Your task to perform on an android device: add a contact in the contacts app Image 0: 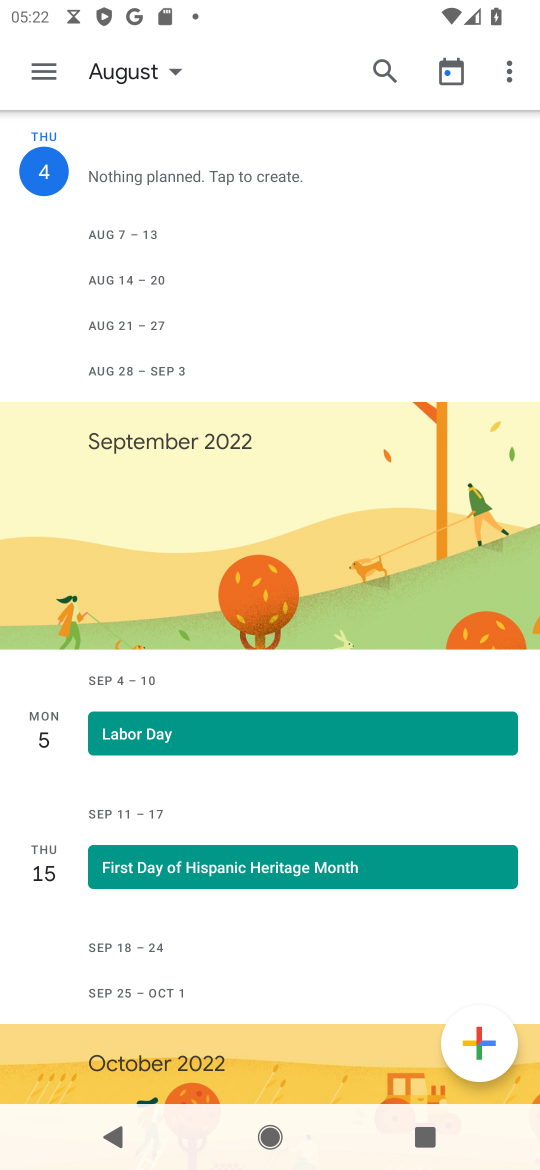
Step 0: press home button
Your task to perform on an android device: add a contact in the contacts app Image 1: 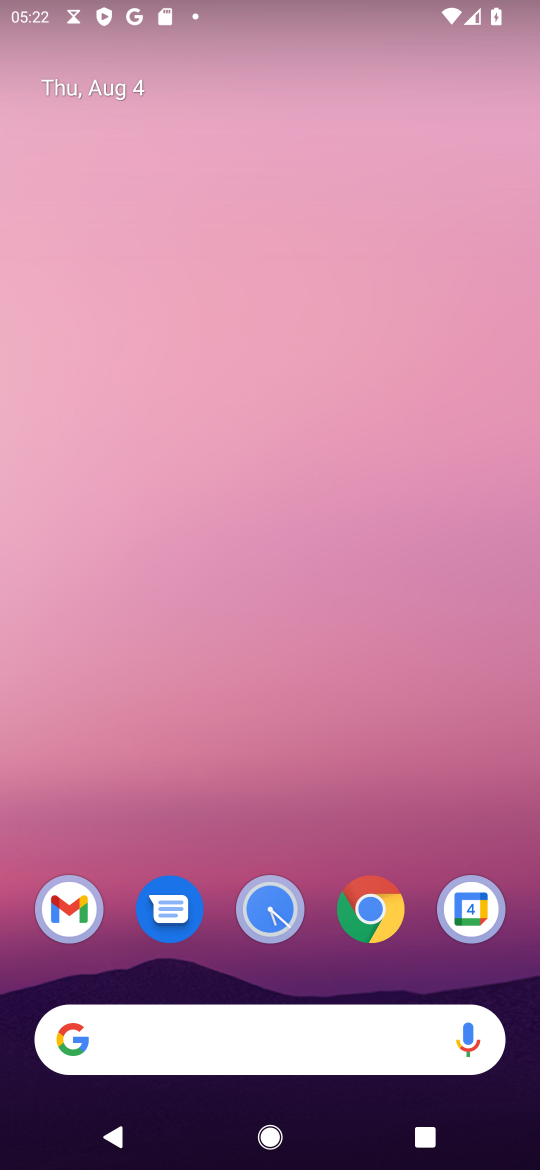
Step 1: drag from (341, 937) to (528, 224)
Your task to perform on an android device: add a contact in the contacts app Image 2: 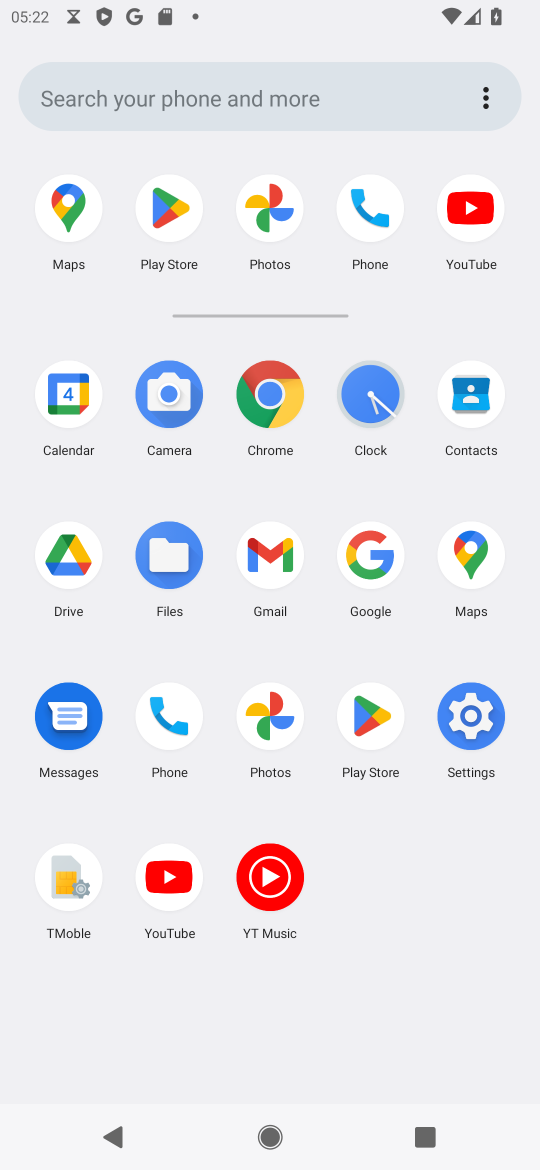
Step 2: click (474, 402)
Your task to perform on an android device: add a contact in the contacts app Image 3: 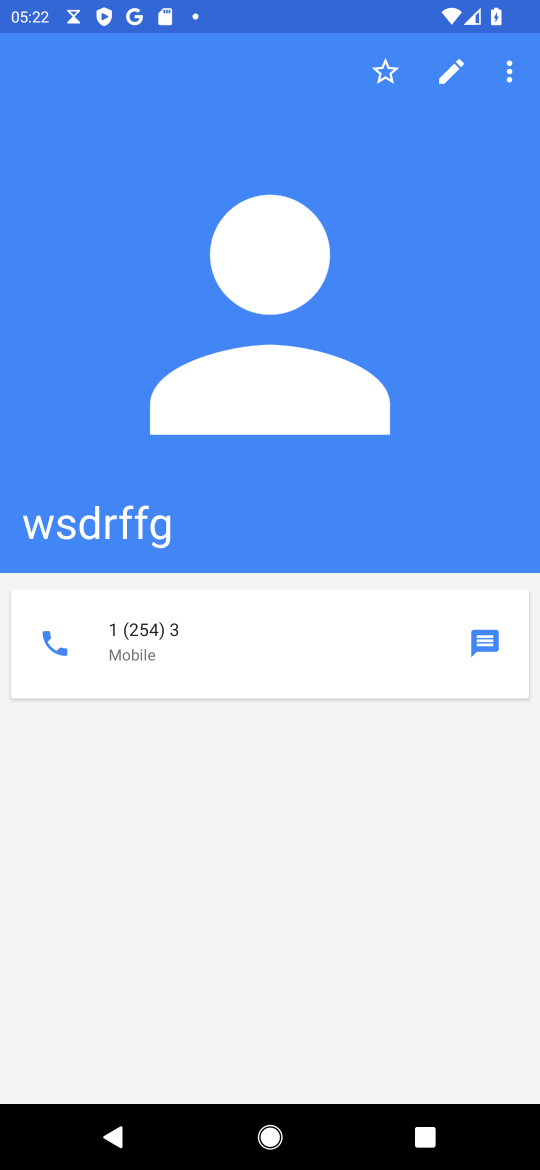
Step 3: press back button
Your task to perform on an android device: add a contact in the contacts app Image 4: 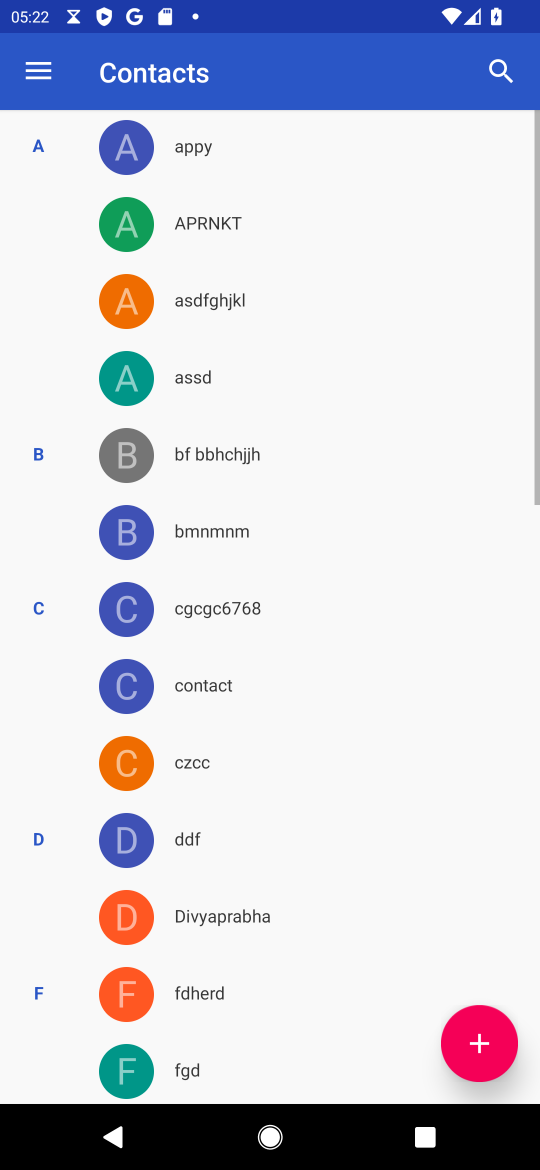
Step 4: click (476, 1044)
Your task to perform on an android device: add a contact in the contacts app Image 5: 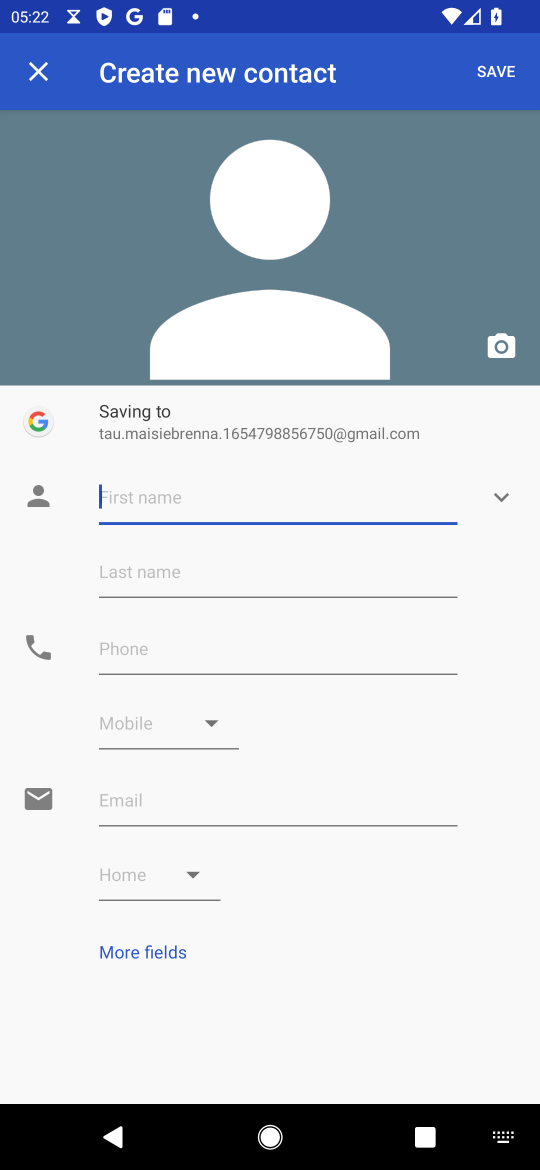
Step 5: click (102, 483)
Your task to perform on an android device: add a contact in the contacts app Image 6: 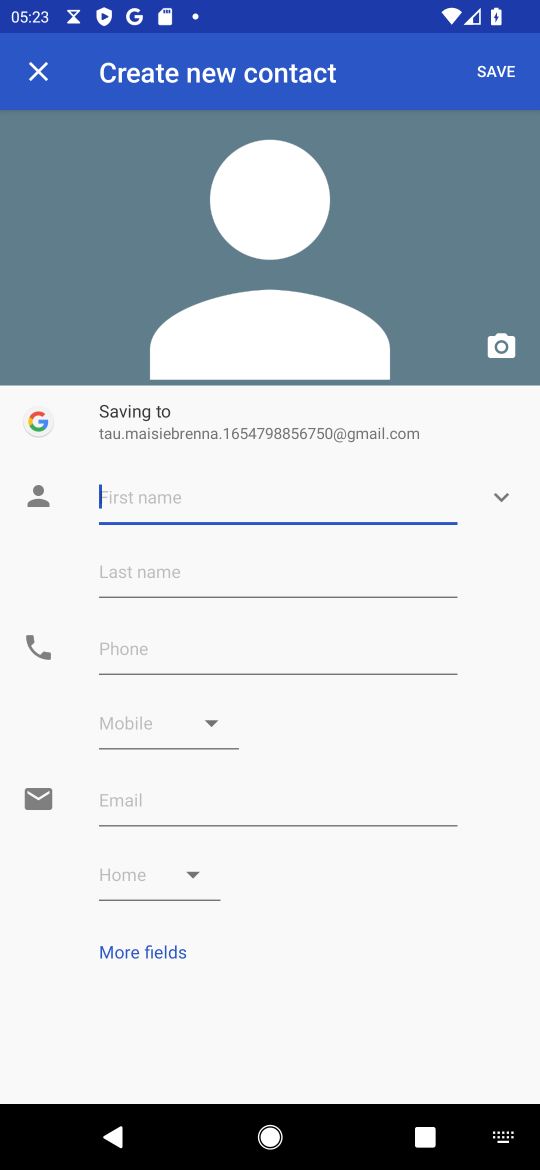
Step 6: type "msdrrggj"
Your task to perform on an android device: add a contact in the contacts app Image 7: 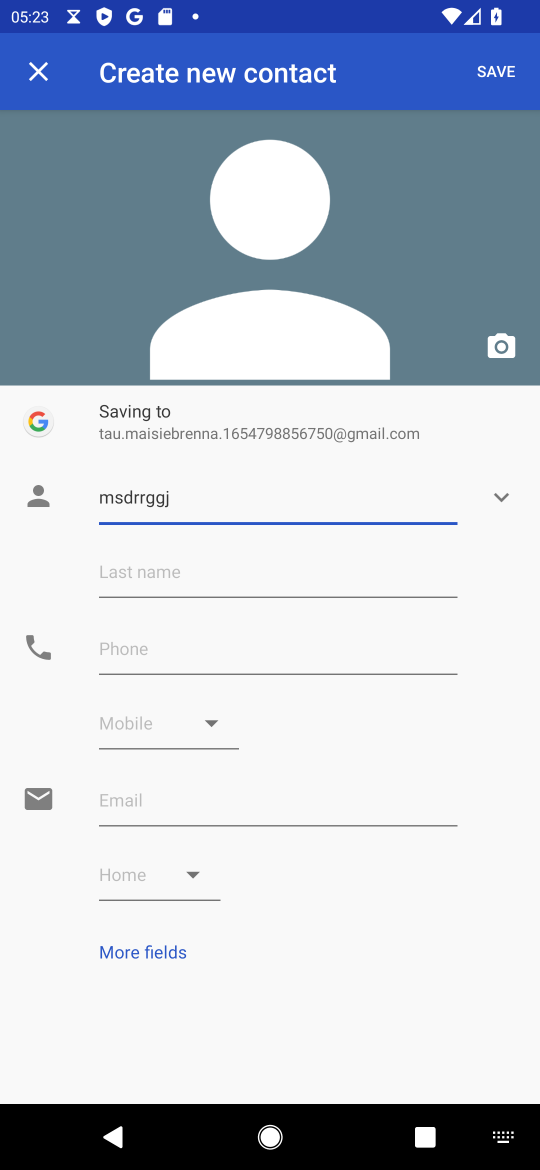
Step 7: click (121, 639)
Your task to perform on an android device: add a contact in the contacts app Image 8: 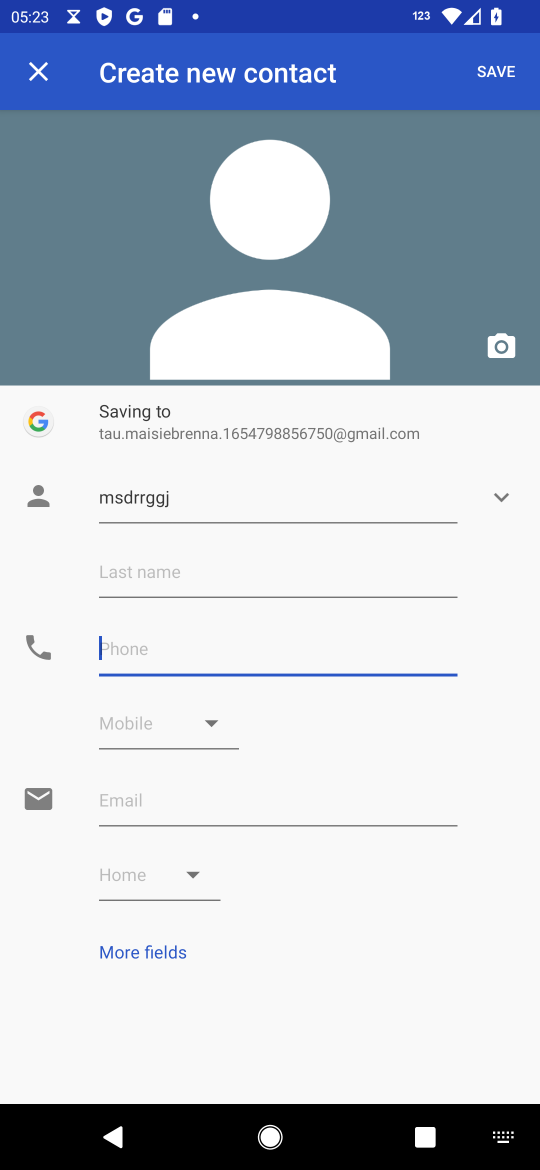
Step 8: type "764889"
Your task to perform on an android device: add a contact in the contacts app Image 9: 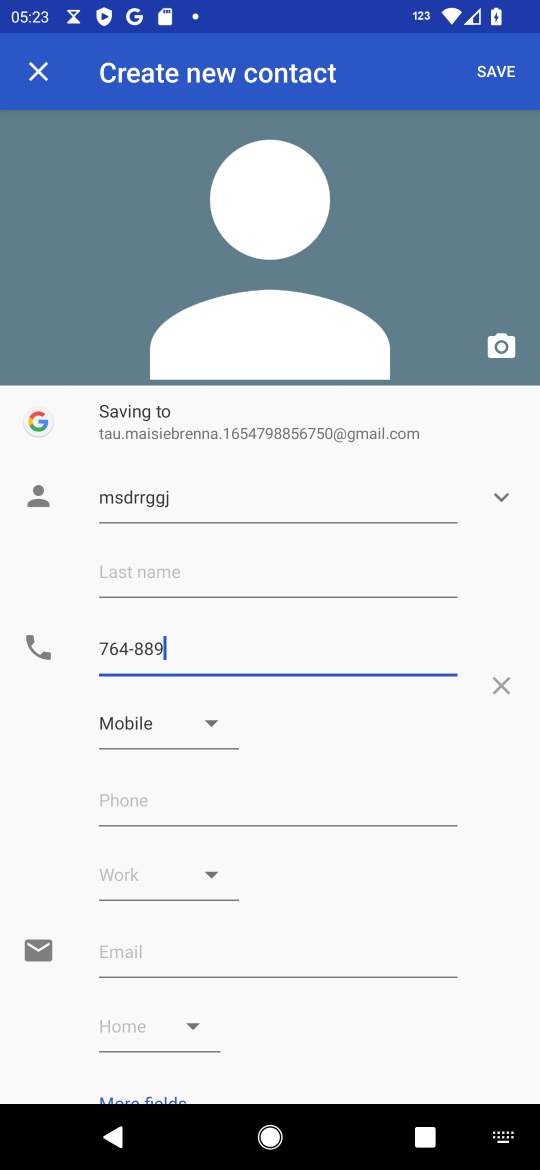
Step 9: click (511, 73)
Your task to perform on an android device: add a contact in the contacts app Image 10: 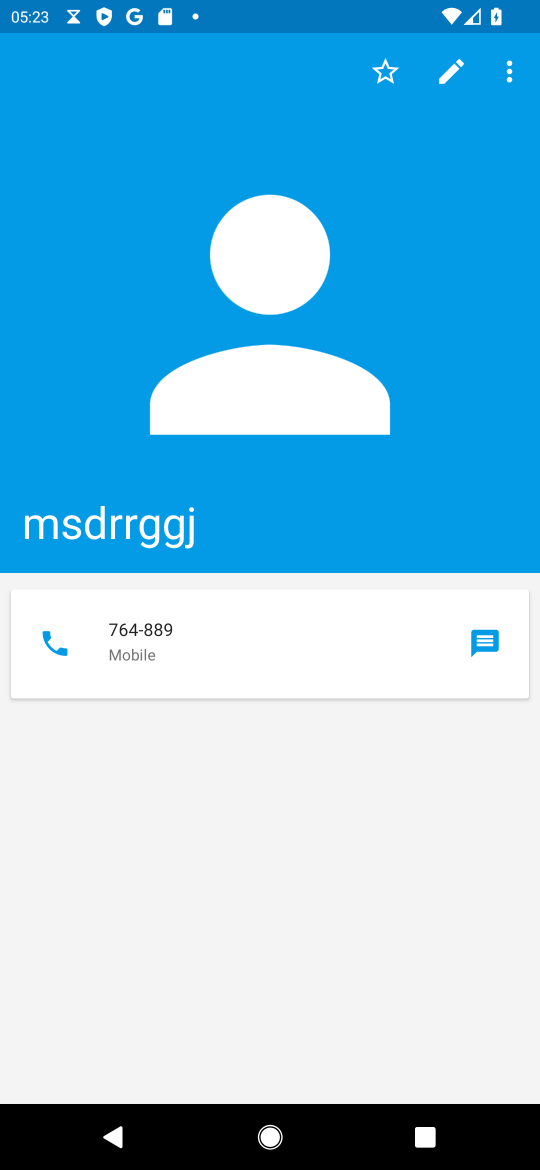
Step 10: task complete